Your task to perform on an android device: check battery use Image 0: 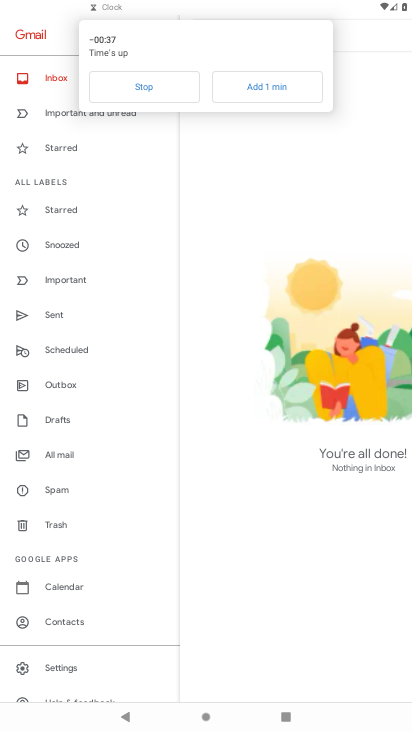
Step 0: press home button
Your task to perform on an android device: check battery use Image 1: 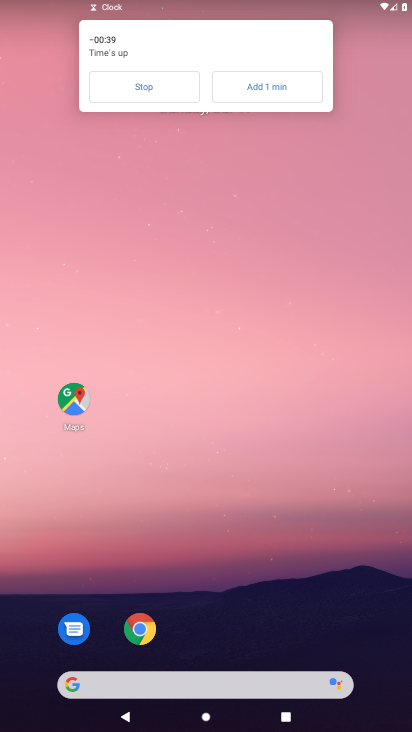
Step 1: drag from (239, 725) to (206, 60)
Your task to perform on an android device: check battery use Image 2: 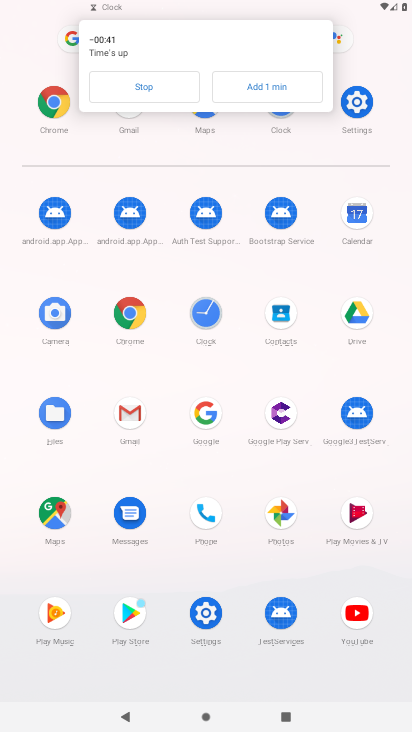
Step 2: click (361, 102)
Your task to perform on an android device: check battery use Image 3: 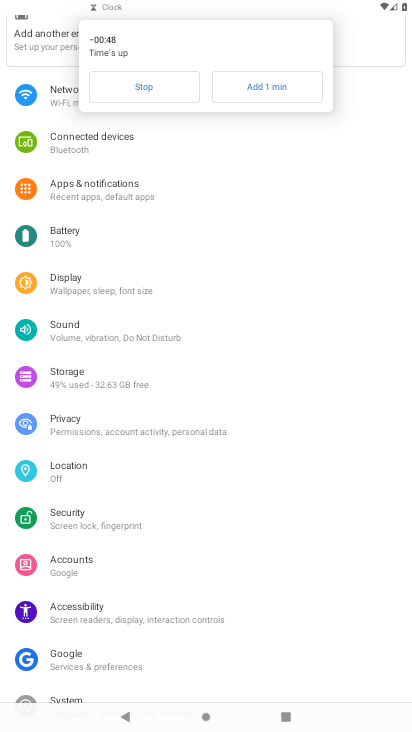
Step 3: click (57, 238)
Your task to perform on an android device: check battery use Image 4: 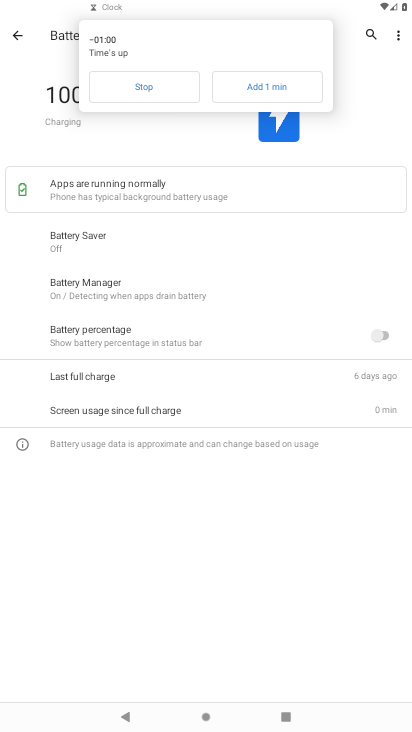
Step 4: click (399, 36)
Your task to perform on an android device: check battery use Image 5: 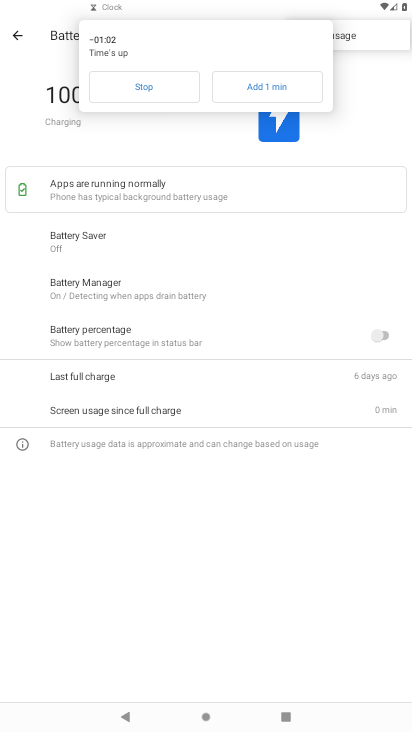
Step 5: click (351, 29)
Your task to perform on an android device: check battery use Image 6: 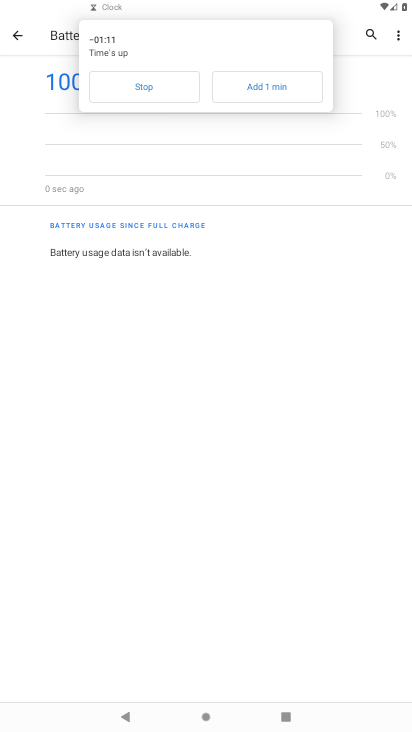
Step 6: task complete